Your task to perform on an android device: make emails show in primary in the gmail app Image 0: 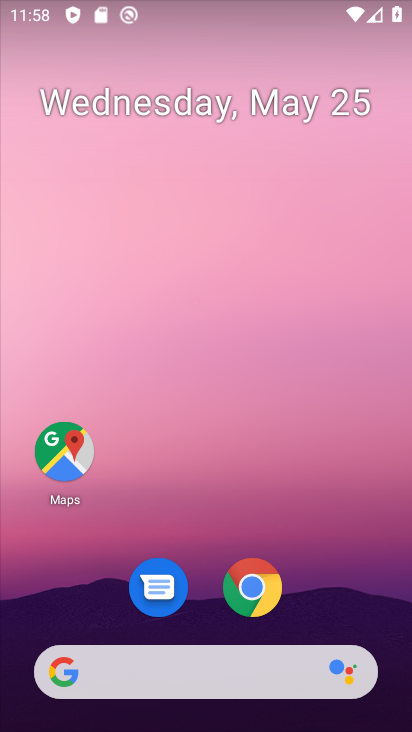
Step 0: drag from (372, 599) to (385, 118)
Your task to perform on an android device: make emails show in primary in the gmail app Image 1: 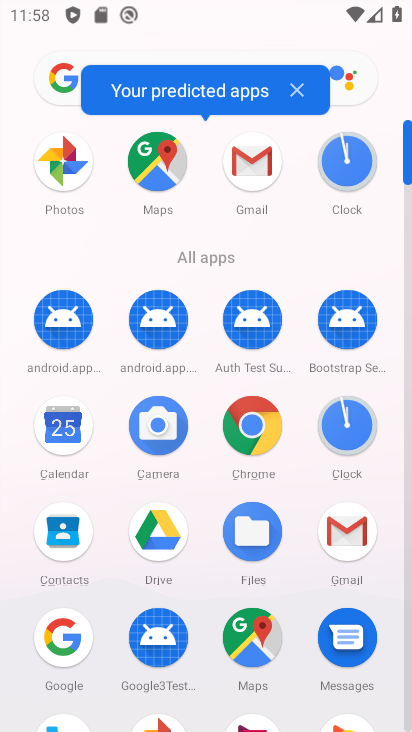
Step 1: click (360, 548)
Your task to perform on an android device: make emails show in primary in the gmail app Image 2: 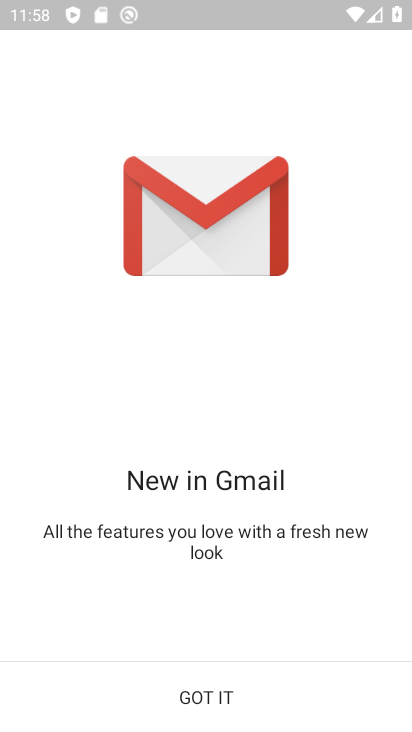
Step 2: click (310, 695)
Your task to perform on an android device: make emails show in primary in the gmail app Image 3: 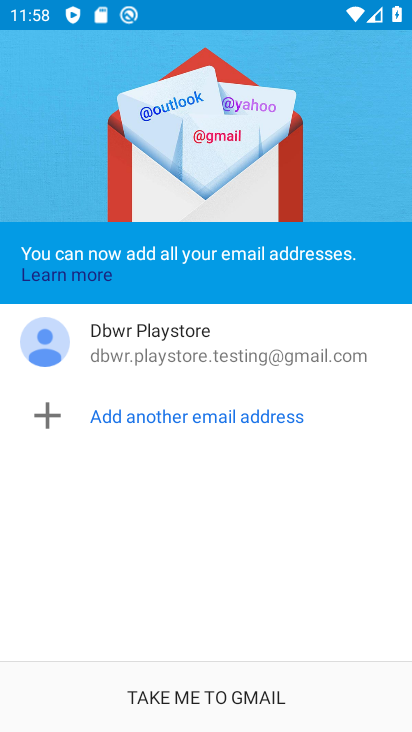
Step 3: click (301, 701)
Your task to perform on an android device: make emails show in primary in the gmail app Image 4: 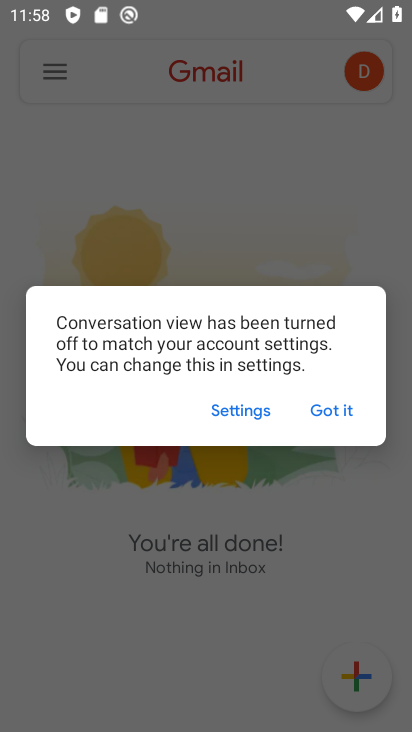
Step 4: click (333, 409)
Your task to perform on an android device: make emails show in primary in the gmail app Image 5: 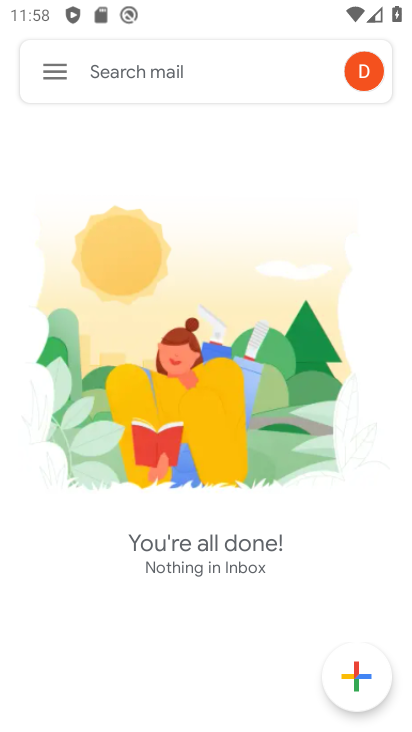
Step 5: click (324, 407)
Your task to perform on an android device: make emails show in primary in the gmail app Image 6: 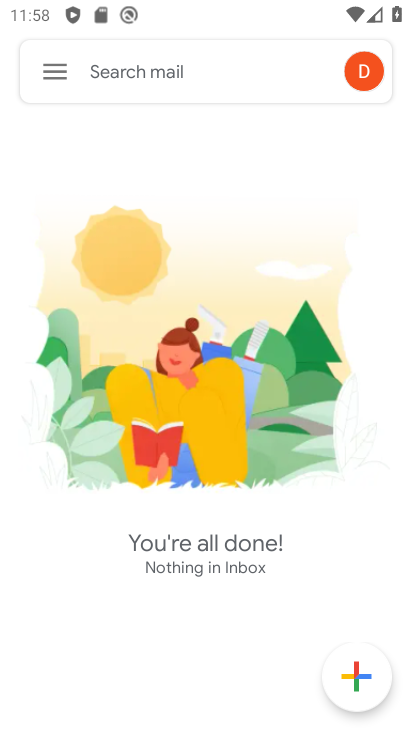
Step 6: click (44, 71)
Your task to perform on an android device: make emails show in primary in the gmail app Image 7: 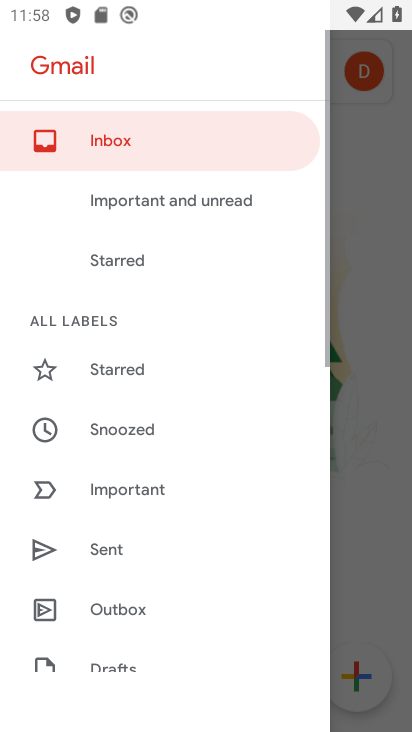
Step 7: click (66, 77)
Your task to perform on an android device: make emails show in primary in the gmail app Image 8: 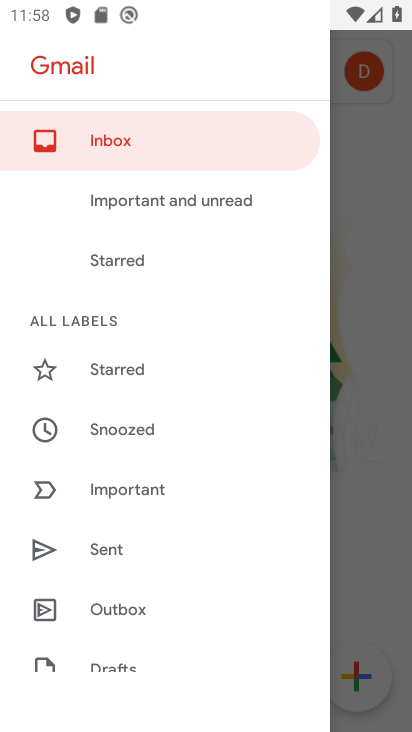
Step 8: drag from (232, 600) to (237, 468)
Your task to perform on an android device: make emails show in primary in the gmail app Image 9: 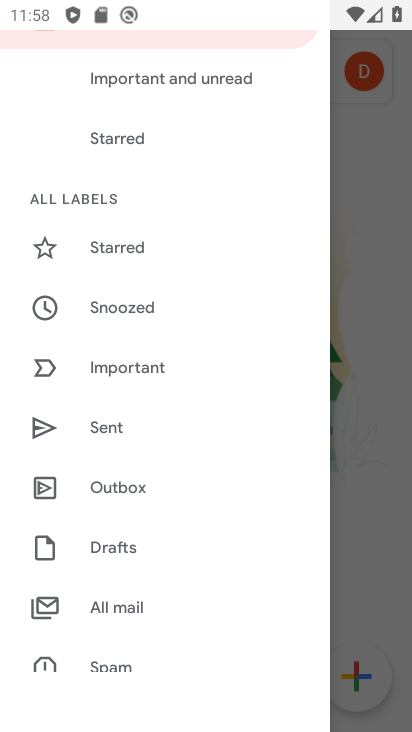
Step 9: drag from (239, 567) to (247, 464)
Your task to perform on an android device: make emails show in primary in the gmail app Image 10: 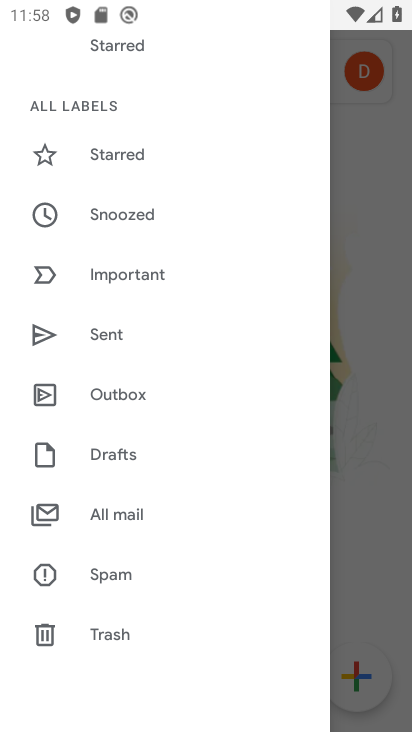
Step 10: drag from (237, 587) to (244, 441)
Your task to perform on an android device: make emails show in primary in the gmail app Image 11: 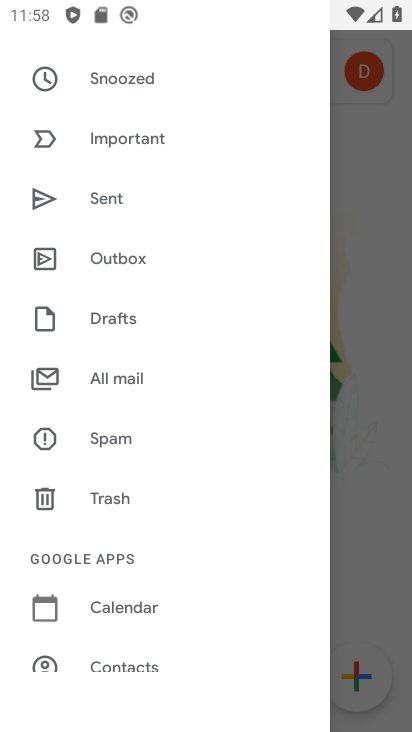
Step 11: drag from (232, 589) to (230, 473)
Your task to perform on an android device: make emails show in primary in the gmail app Image 12: 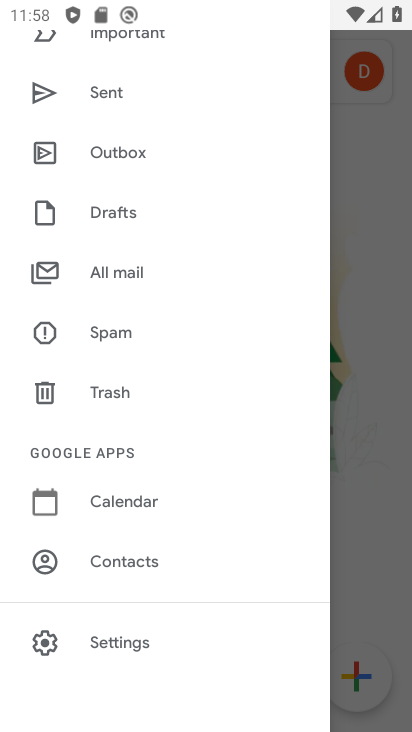
Step 12: drag from (222, 609) to (237, 474)
Your task to perform on an android device: make emails show in primary in the gmail app Image 13: 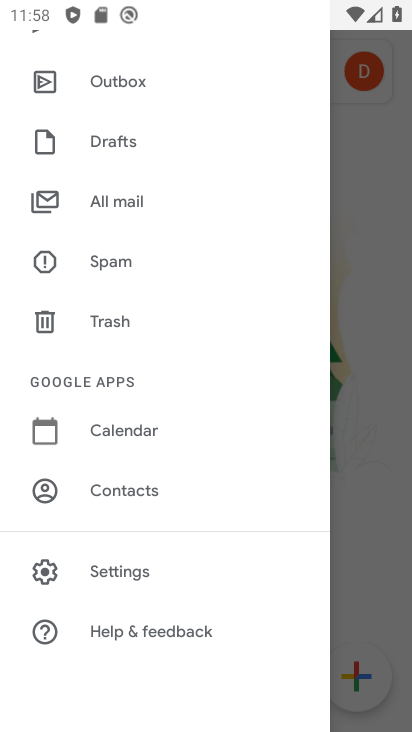
Step 13: click (172, 577)
Your task to perform on an android device: make emails show in primary in the gmail app Image 14: 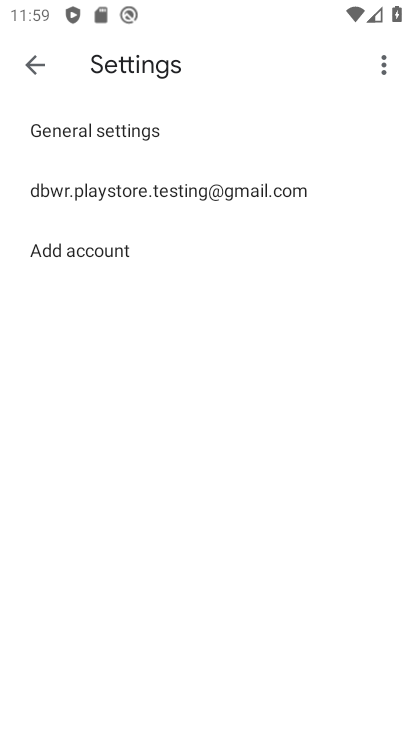
Step 14: click (258, 194)
Your task to perform on an android device: make emails show in primary in the gmail app Image 15: 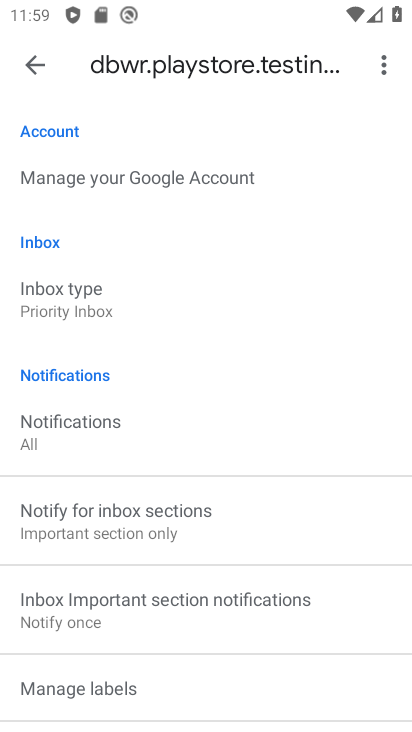
Step 15: click (125, 311)
Your task to perform on an android device: make emails show in primary in the gmail app Image 16: 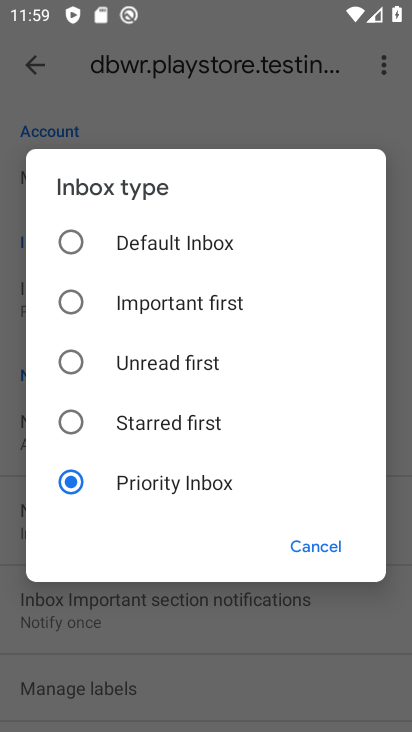
Step 16: click (150, 239)
Your task to perform on an android device: make emails show in primary in the gmail app Image 17: 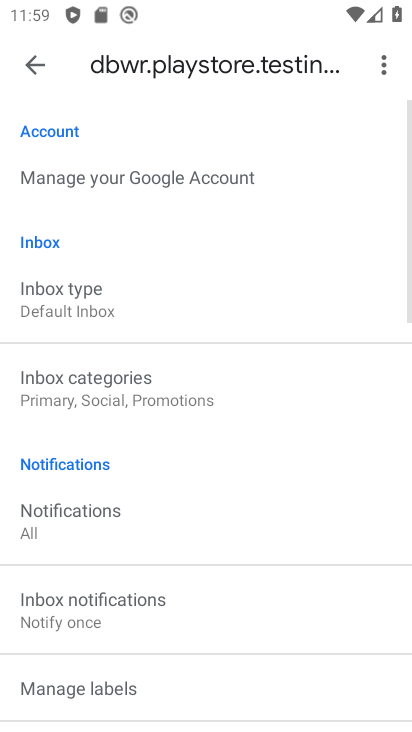
Step 17: click (172, 394)
Your task to perform on an android device: make emails show in primary in the gmail app Image 18: 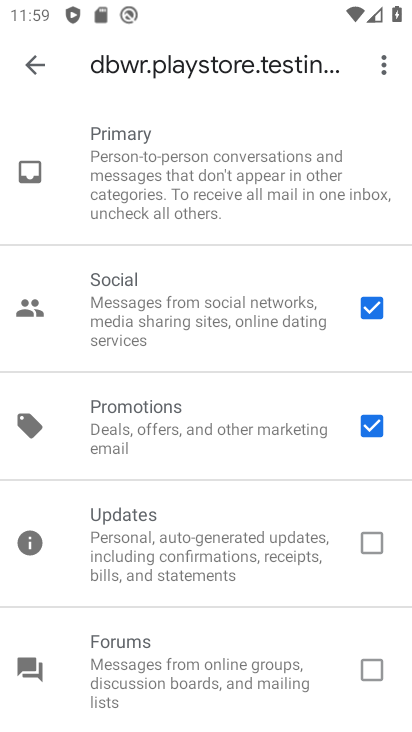
Step 18: click (376, 436)
Your task to perform on an android device: make emails show in primary in the gmail app Image 19: 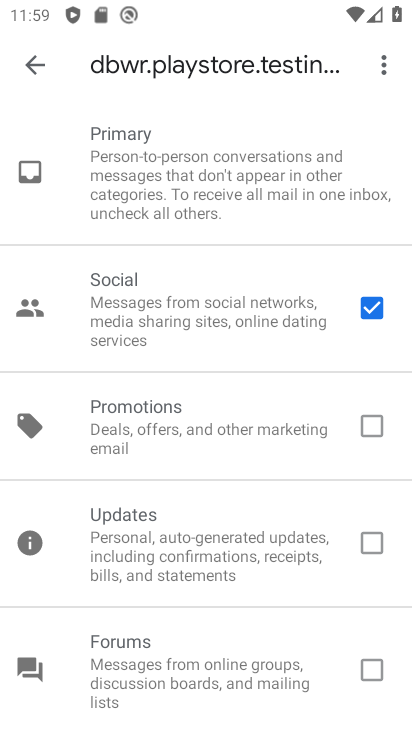
Step 19: click (370, 308)
Your task to perform on an android device: make emails show in primary in the gmail app Image 20: 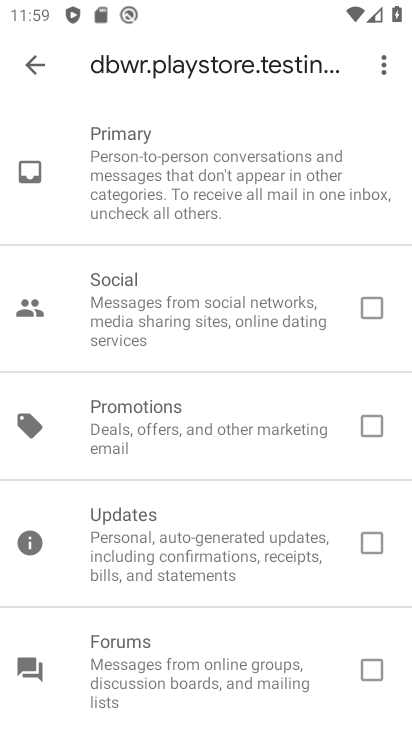
Step 20: task complete